Your task to perform on an android device: When is my next meeting? Image 0: 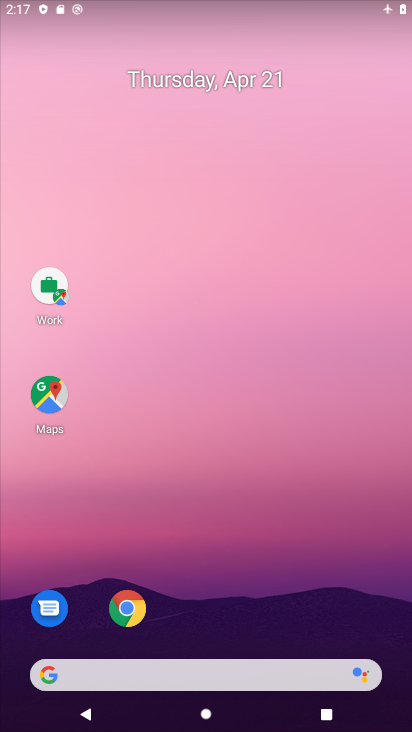
Step 0: drag from (243, 604) to (215, 285)
Your task to perform on an android device: When is my next meeting? Image 1: 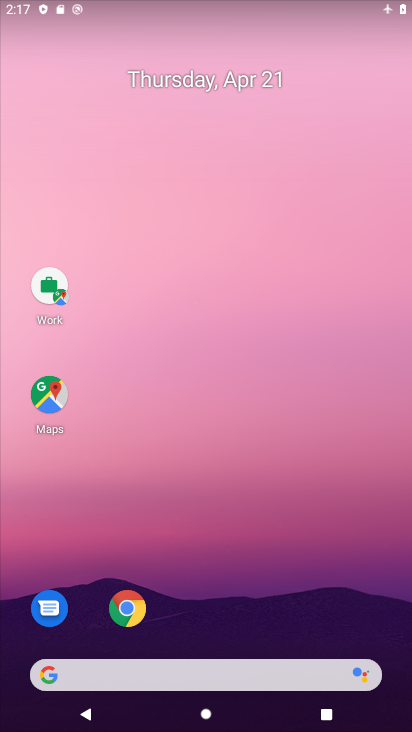
Step 1: drag from (238, 510) to (215, 184)
Your task to perform on an android device: When is my next meeting? Image 2: 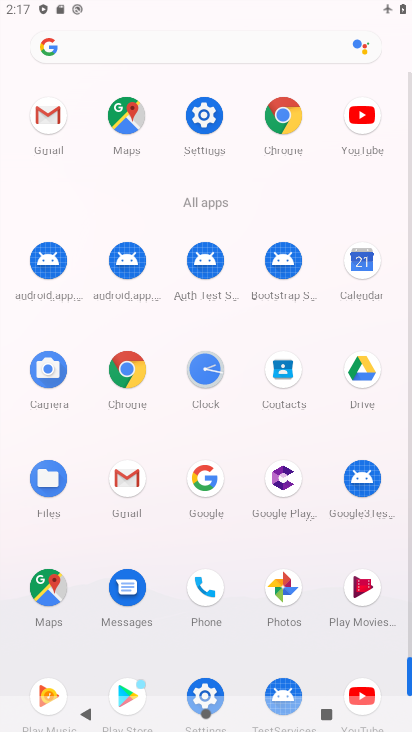
Step 2: click (367, 291)
Your task to perform on an android device: When is my next meeting? Image 3: 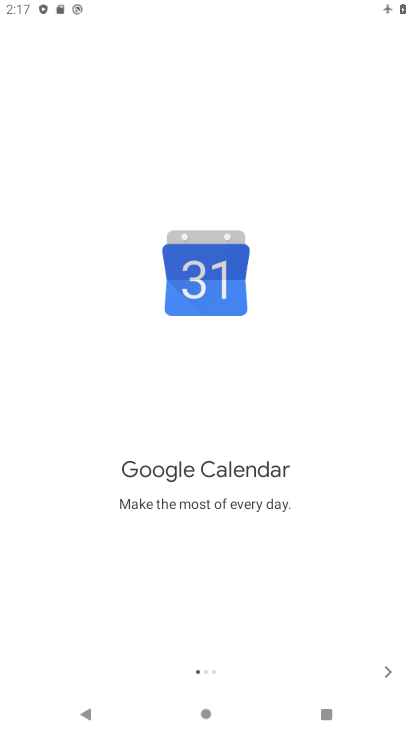
Step 3: click (389, 673)
Your task to perform on an android device: When is my next meeting? Image 4: 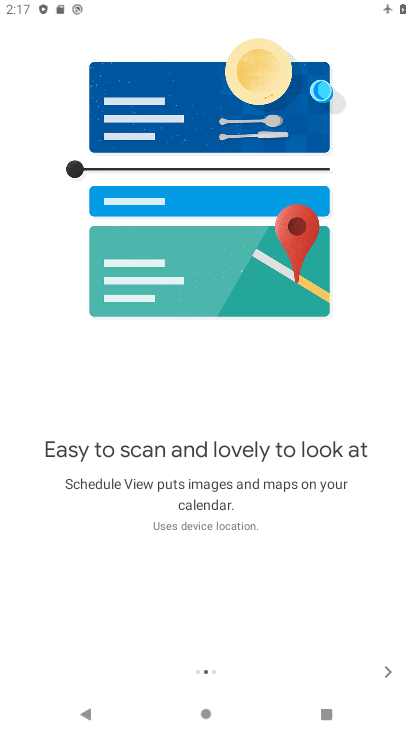
Step 4: click (386, 672)
Your task to perform on an android device: When is my next meeting? Image 5: 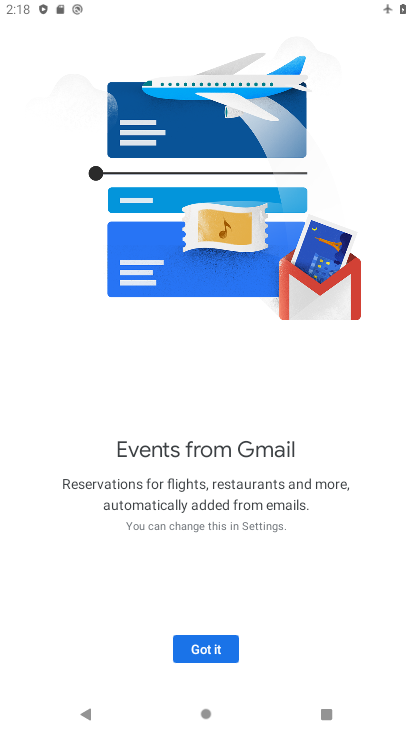
Step 5: click (213, 654)
Your task to perform on an android device: When is my next meeting? Image 6: 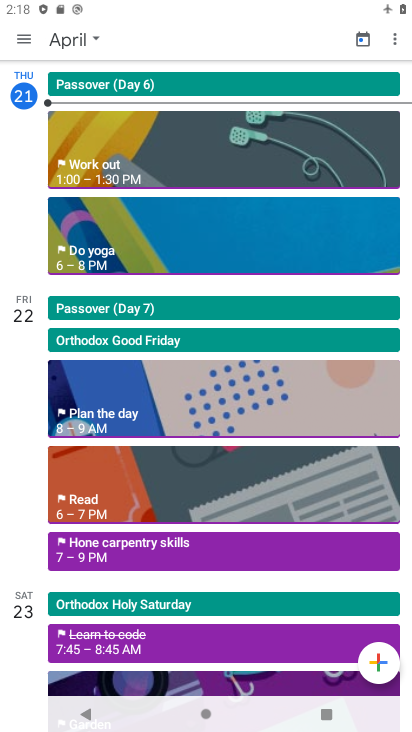
Step 6: task complete